Your task to perform on an android device: set the timer Image 0: 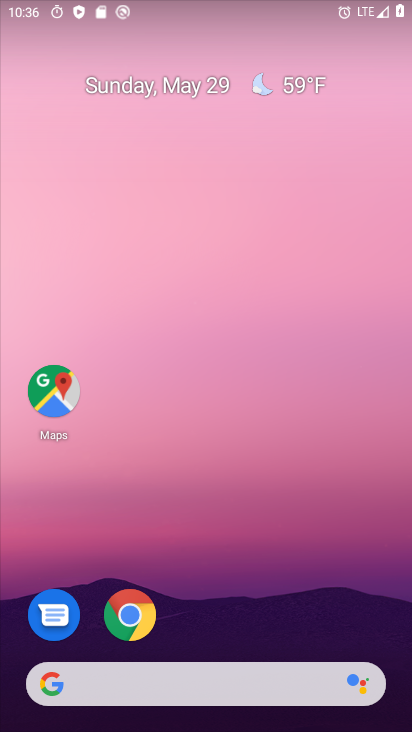
Step 0: drag from (209, 574) to (243, 114)
Your task to perform on an android device: set the timer Image 1: 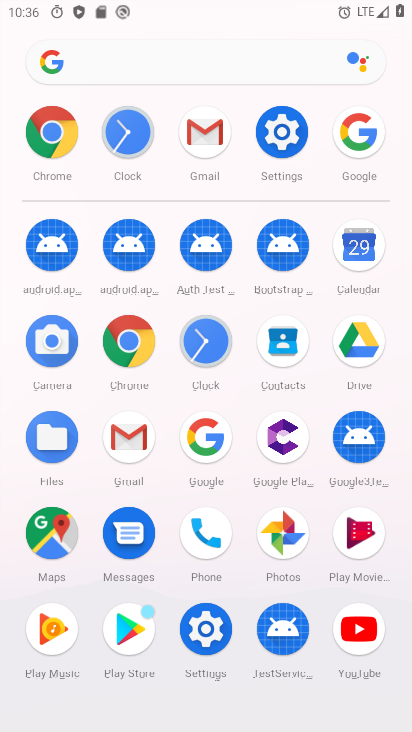
Step 1: click (207, 343)
Your task to perform on an android device: set the timer Image 2: 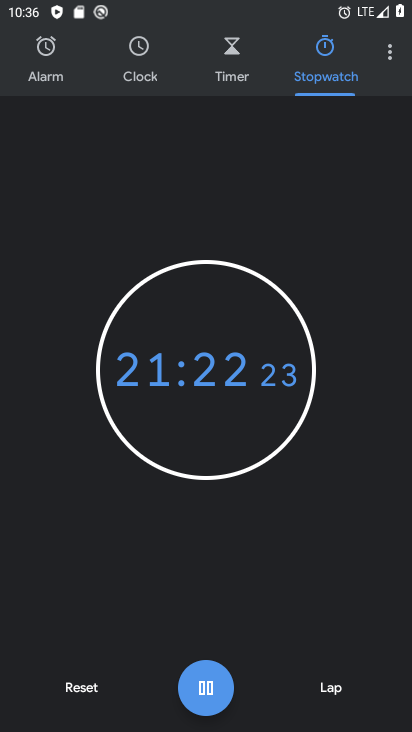
Step 2: click (239, 66)
Your task to perform on an android device: set the timer Image 3: 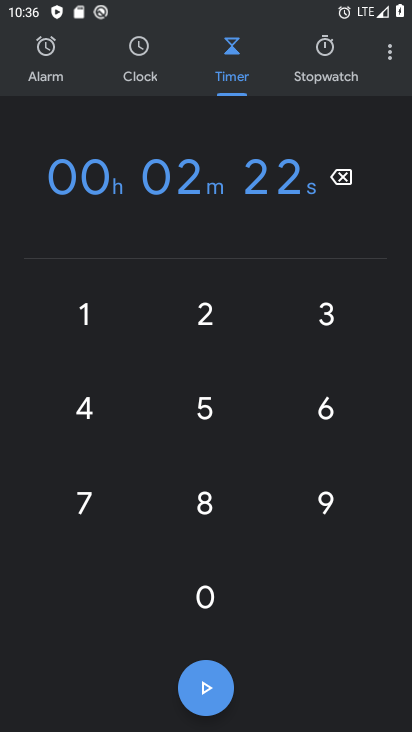
Step 3: click (201, 303)
Your task to perform on an android device: set the timer Image 4: 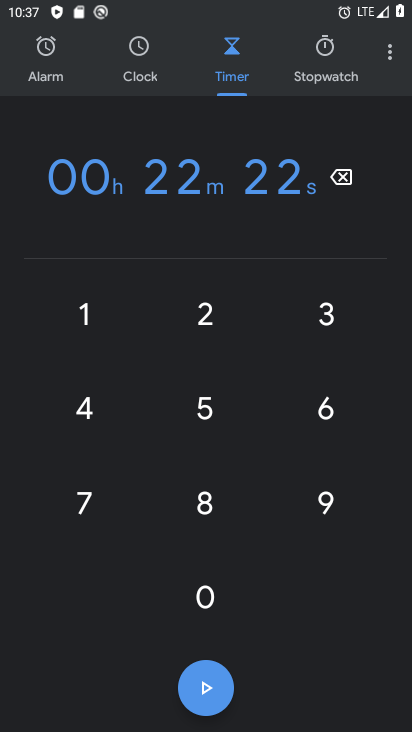
Step 4: task complete